Your task to perform on an android device: Open Chrome and go to settings Image 0: 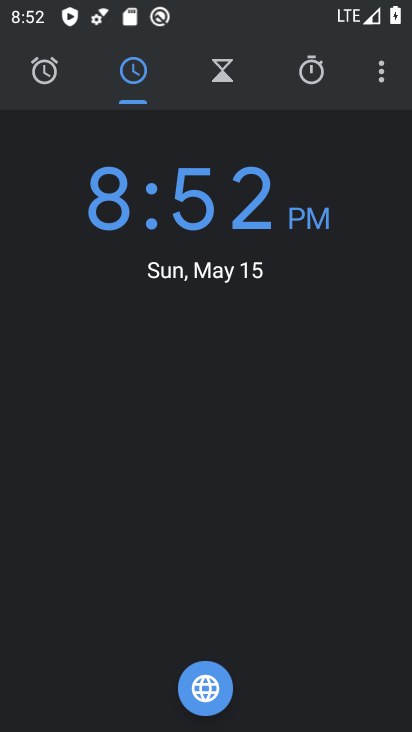
Step 0: press home button
Your task to perform on an android device: Open Chrome and go to settings Image 1: 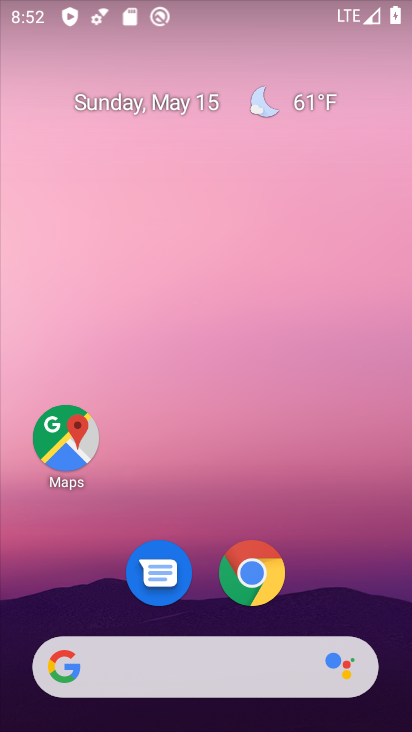
Step 1: click (250, 562)
Your task to perform on an android device: Open Chrome and go to settings Image 2: 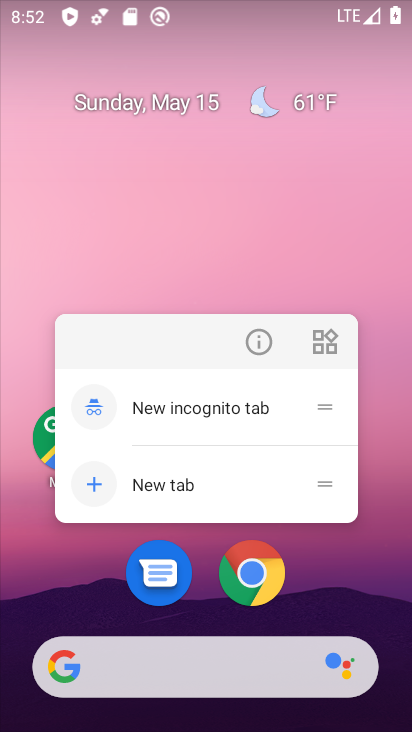
Step 2: click (255, 584)
Your task to perform on an android device: Open Chrome and go to settings Image 3: 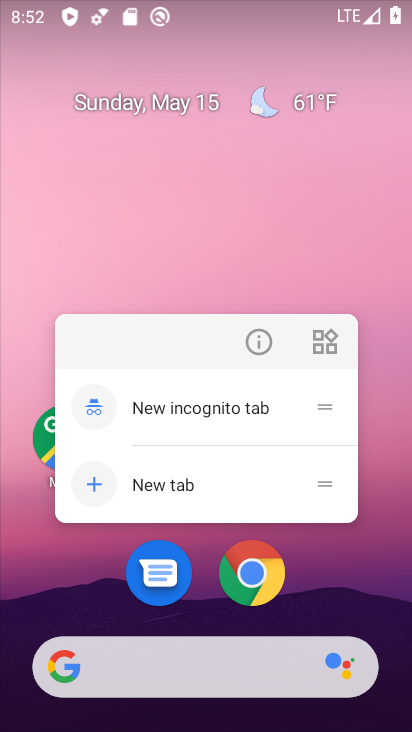
Step 3: click (255, 567)
Your task to perform on an android device: Open Chrome and go to settings Image 4: 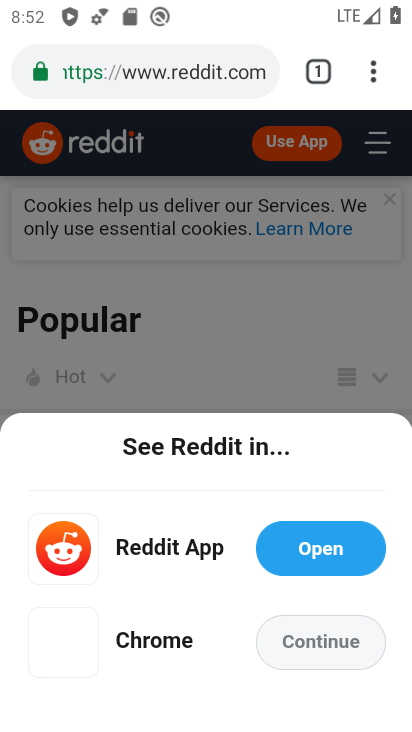
Step 4: click (307, 72)
Your task to perform on an android device: Open Chrome and go to settings Image 5: 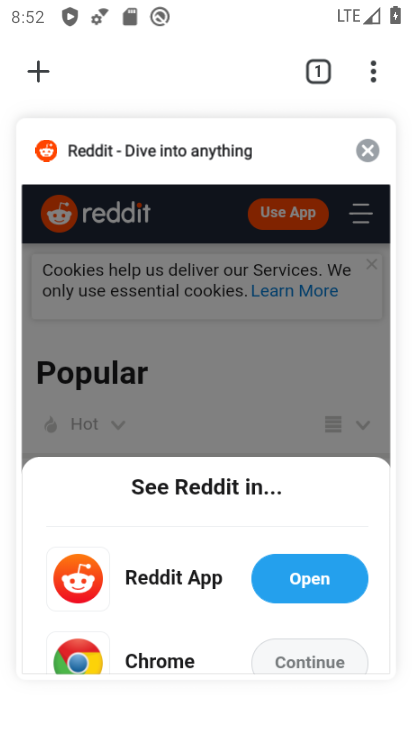
Step 5: click (38, 66)
Your task to perform on an android device: Open Chrome and go to settings Image 6: 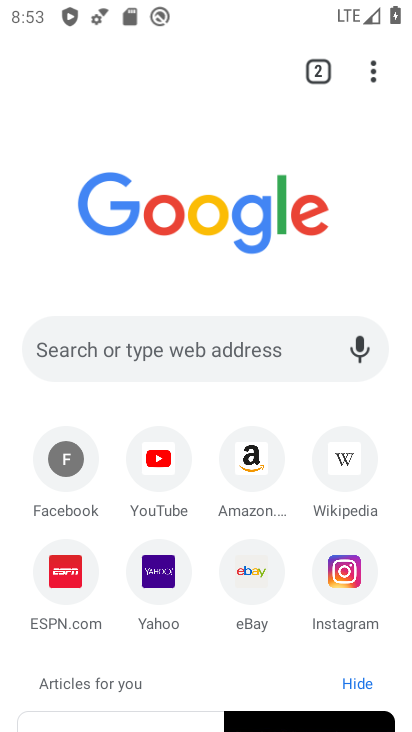
Step 6: click (373, 71)
Your task to perform on an android device: Open Chrome and go to settings Image 7: 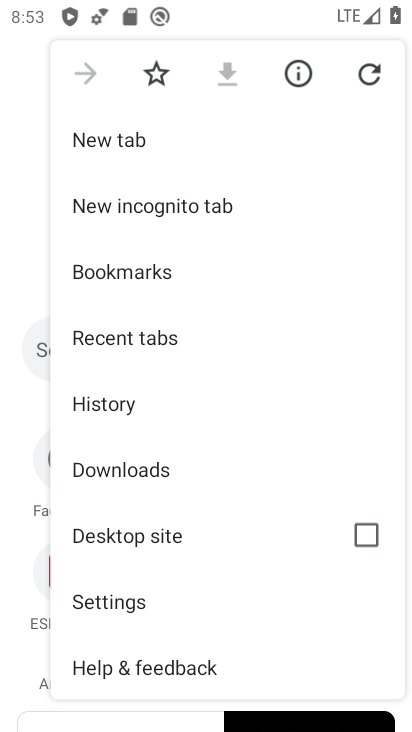
Step 7: click (102, 600)
Your task to perform on an android device: Open Chrome and go to settings Image 8: 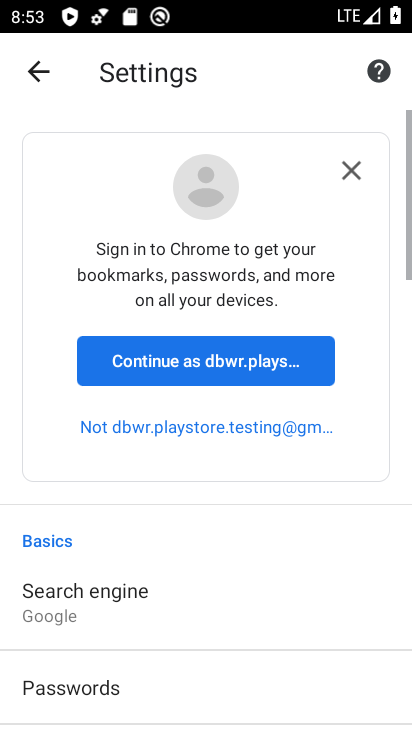
Step 8: click (351, 168)
Your task to perform on an android device: Open Chrome and go to settings Image 9: 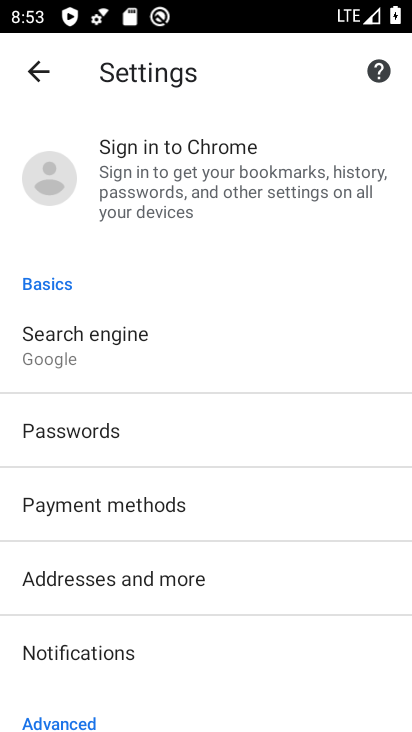
Step 9: task complete